Your task to perform on an android device: Open Google Maps Image 0: 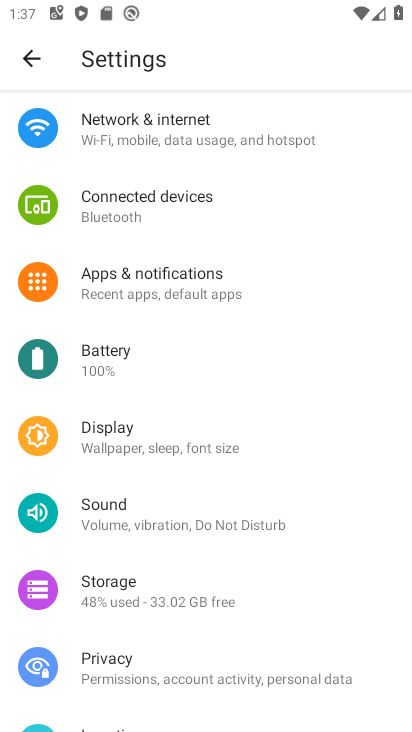
Step 0: press home button
Your task to perform on an android device: Open Google Maps Image 1: 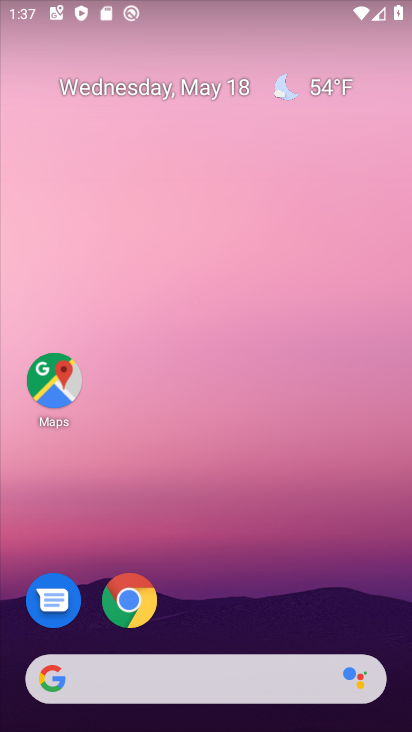
Step 1: click (77, 389)
Your task to perform on an android device: Open Google Maps Image 2: 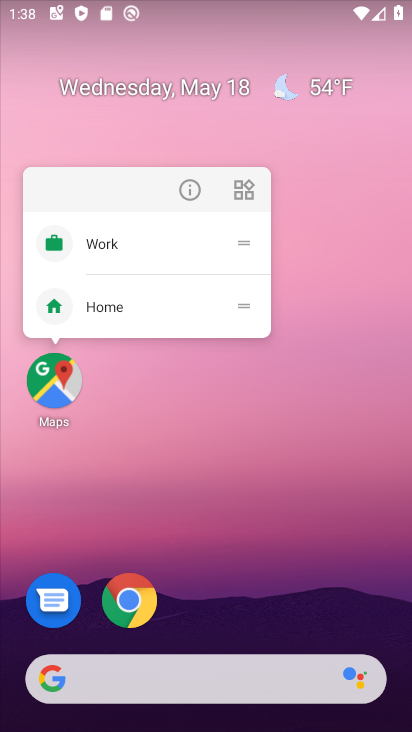
Step 2: click (115, 313)
Your task to perform on an android device: Open Google Maps Image 3: 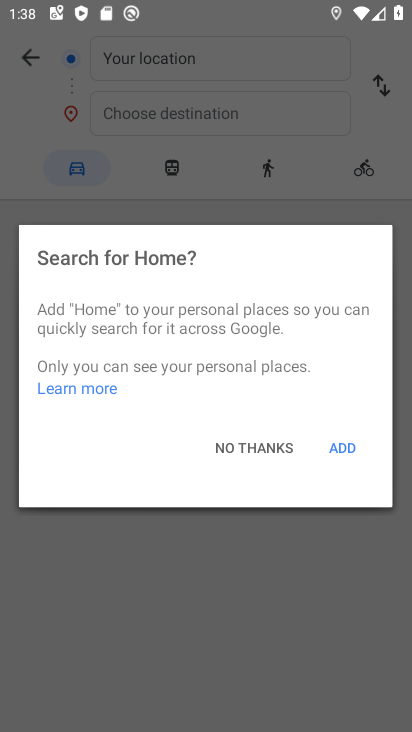
Step 3: click (254, 444)
Your task to perform on an android device: Open Google Maps Image 4: 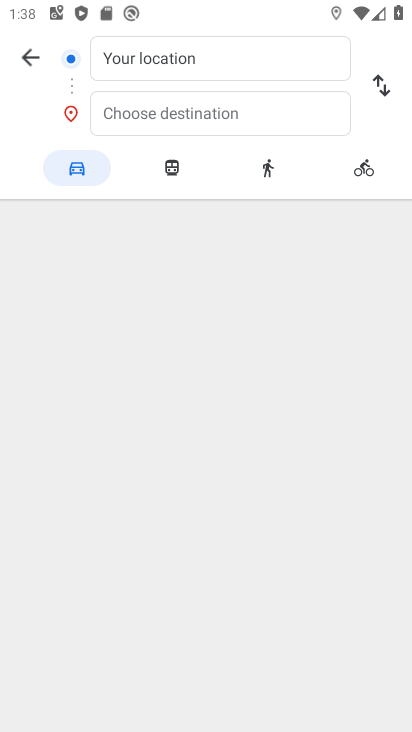
Step 4: click (28, 72)
Your task to perform on an android device: Open Google Maps Image 5: 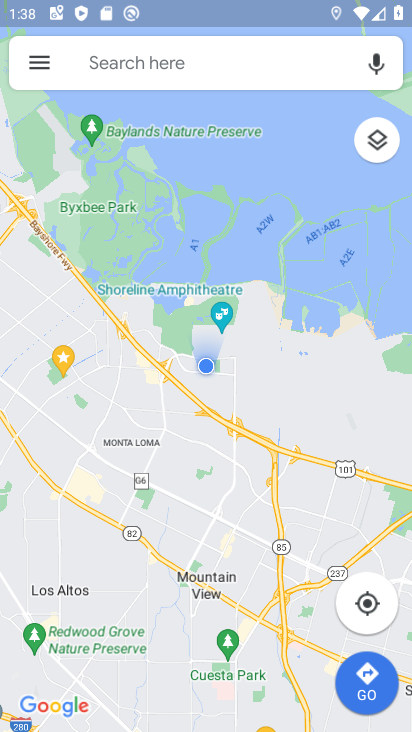
Step 5: task complete